Your task to perform on an android device: allow cookies in the chrome app Image 0: 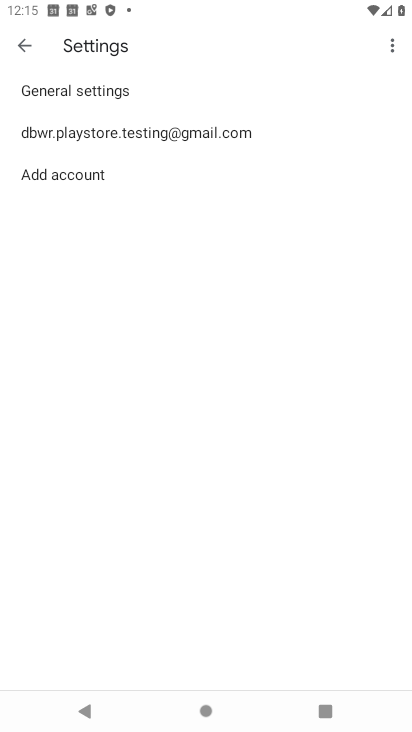
Step 0: press home button
Your task to perform on an android device: allow cookies in the chrome app Image 1: 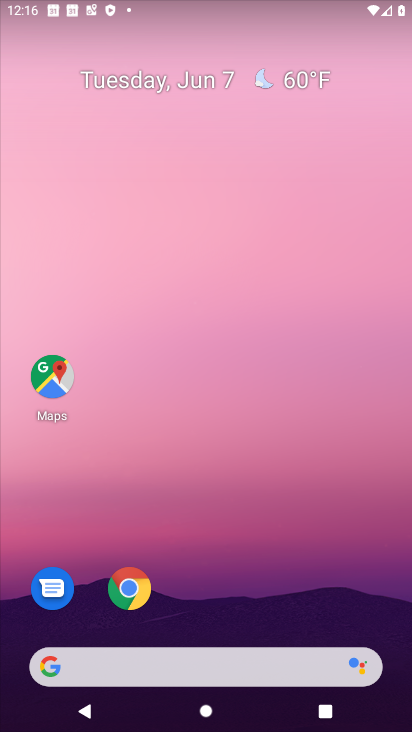
Step 1: drag from (291, 716) to (394, 30)
Your task to perform on an android device: allow cookies in the chrome app Image 2: 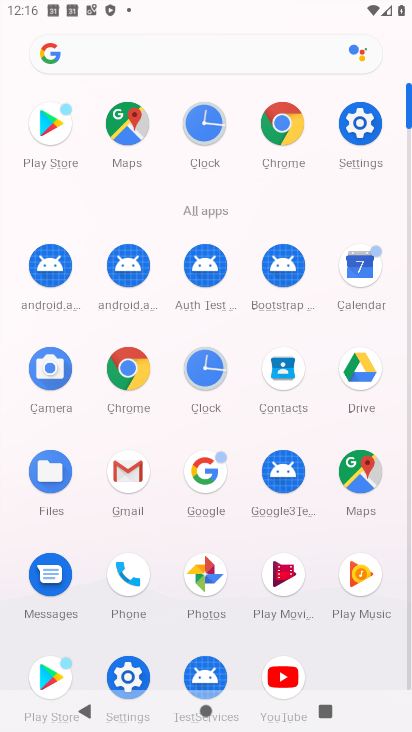
Step 2: click (261, 116)
Your task to perform on an android device: allow cookies in the chrome app Image 3: 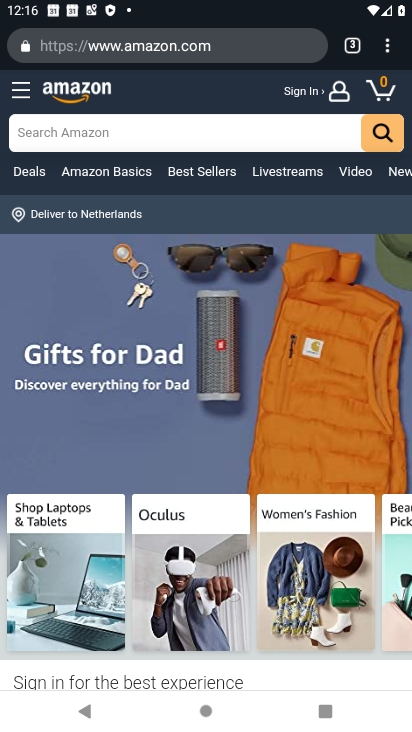
Step 3: click (391, 44)
Your task to perform on an android device: allow cookies in the chrome app Image 4: 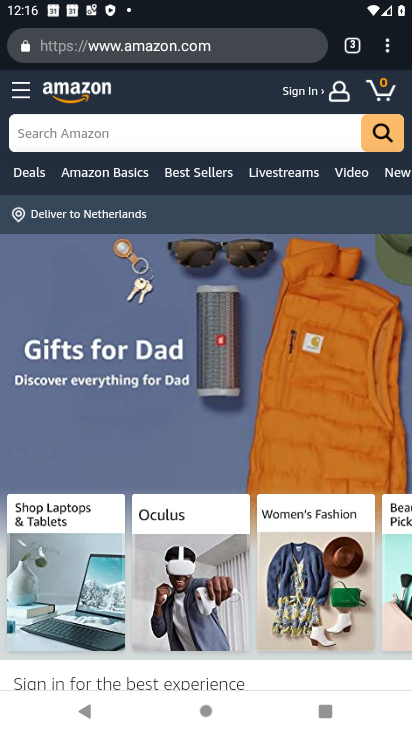
Step 4: click (391, 44)
Your task to perform on an android device: allow cookies in the chrome app Image 5: 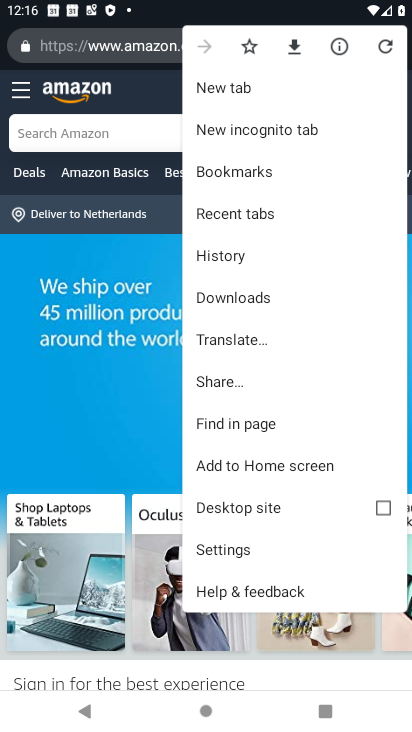
Step 5: click (259, 555)
Your task to perform on an android device: allow cookies in the chrome app Image 6: 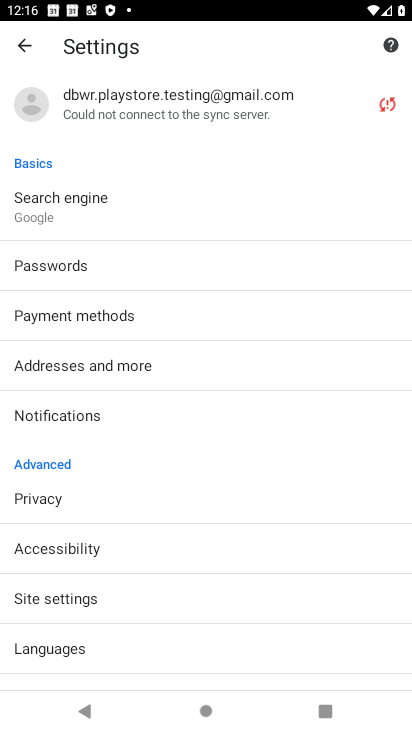
Step 6: click (77, 601)
Your task to perform on an android device: allow cookies in the chrome app Image 7: 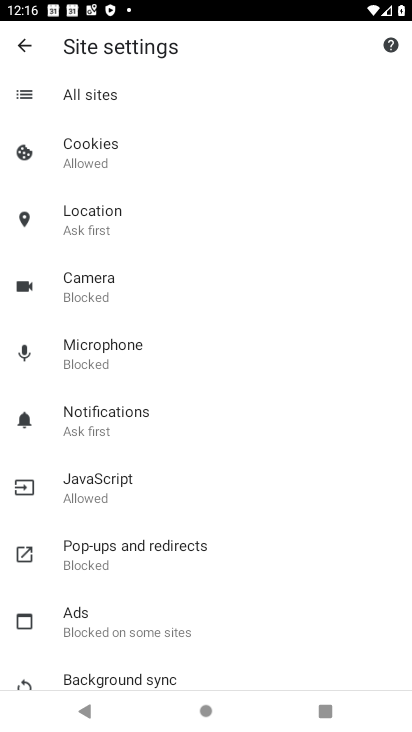
Step 7: click (126, 161)
Your task to perform on an android device: allow cookies in the chrome app Image 8: 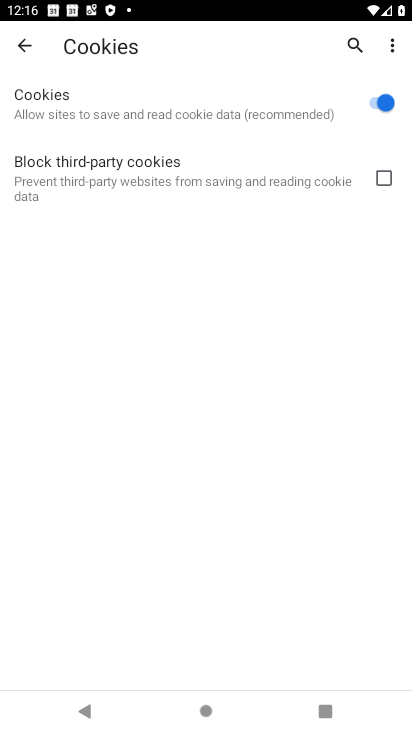
Step 8: task complete